Your task to perform on an android device: Find the nearest grocery store Image 0: 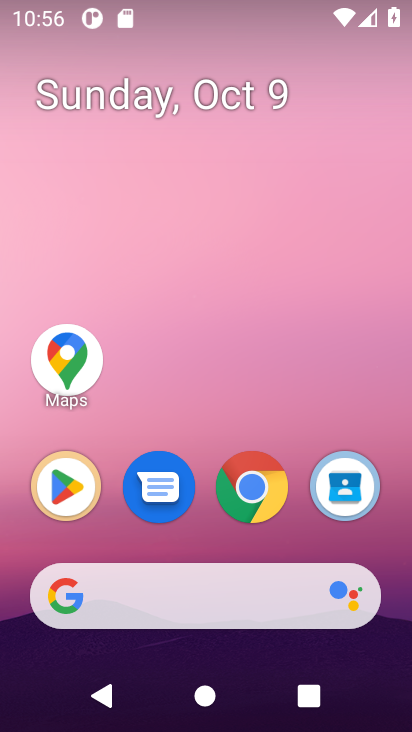
Step 0: click (258, 492)
Your task to perform on an android device: Find the nearest grocery store Image 1: 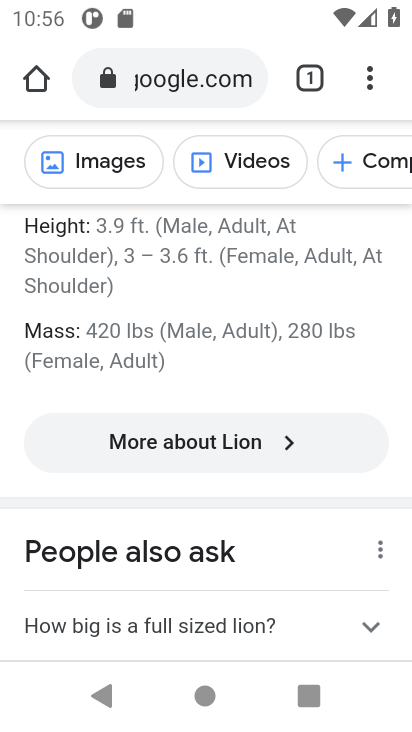
Step 1: click (199, 84)
Your task to perform on an android device: Find the nearest grocery store Image 2: 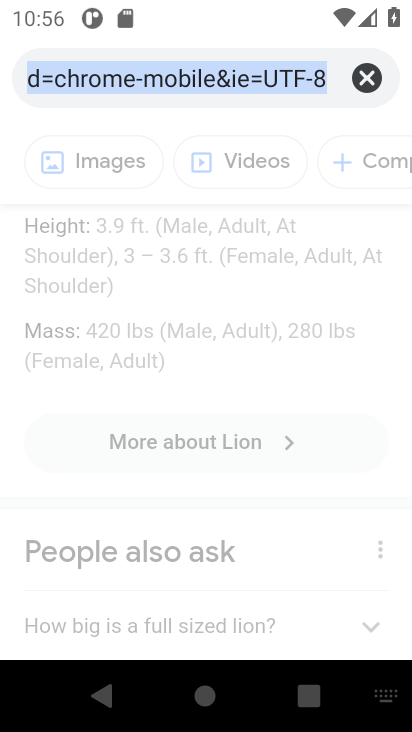
Step 2: type "nearest grocery store"
Your task to perform on an android device: Find the nearest grocery store Image 3: 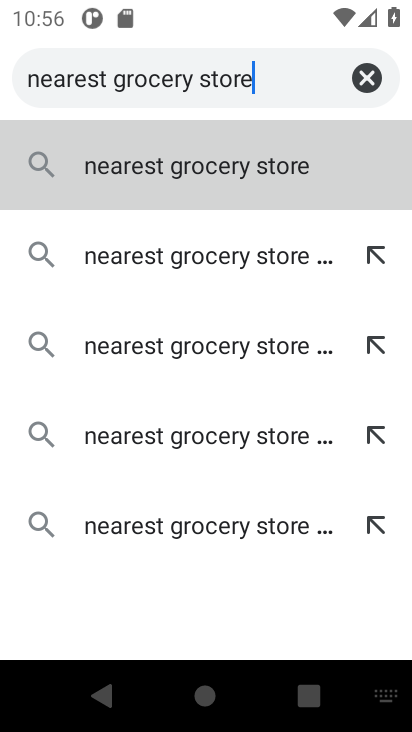
Step 3: type ""
Your task to perform on an android device: Find the nearest grocery store Image 4: 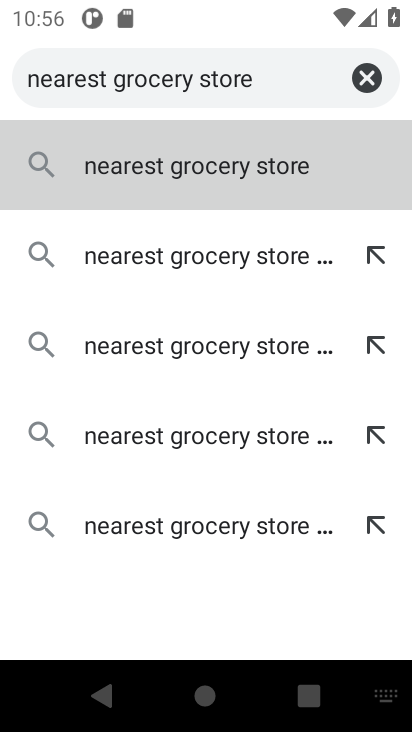
Step 4: press enter
Your task to perform on an android device: Find the nearest grocery store Image 5: 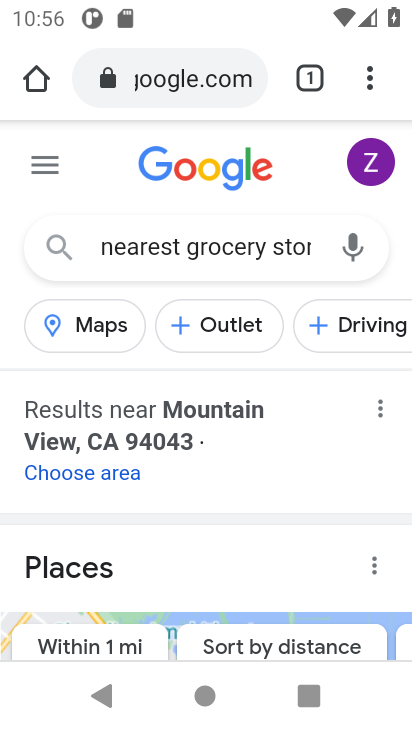
Step 5: drag from (311, 539) to (347, 127)
Your task to perform on an android device: Find the nearest grocery store Image 6: 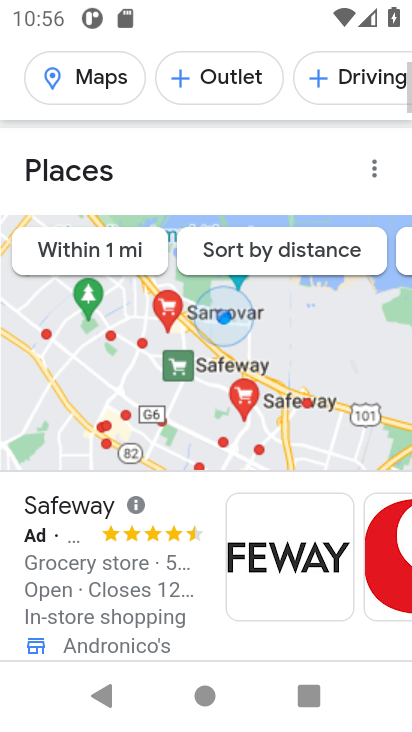
Step 6: drag from (278, 579) to (281, 253)
Your task to perform on an android device: Find the nearest grocery store Image 7: 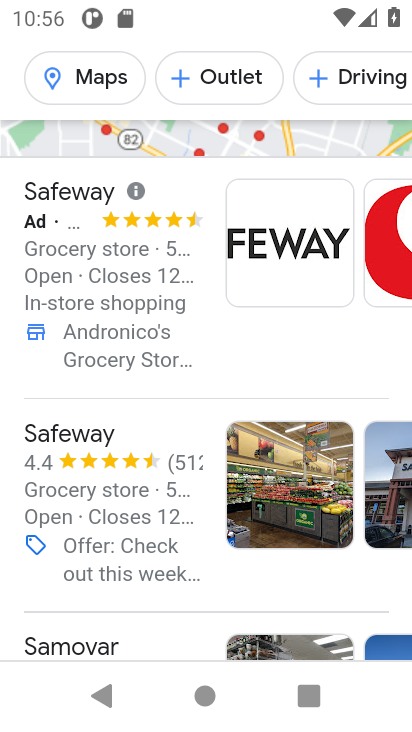
Step 7: drag from (228, 564) to (234, 220)
Your task to perform on an android device: Find the nearest grocery store Image 8: 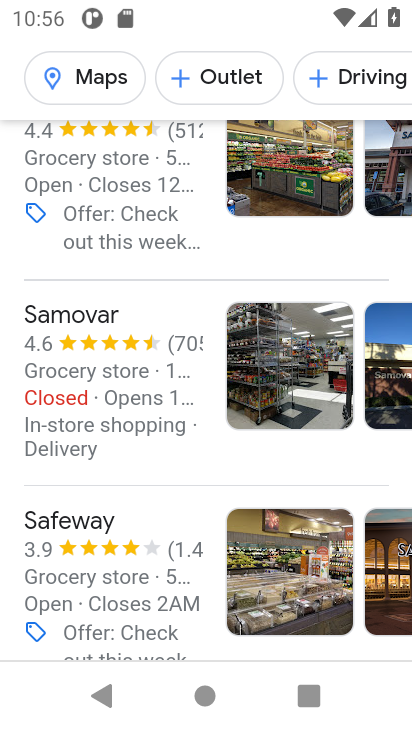
Step 8: drag from (198, 587) to (162, 199)
Your task to perform on an android device: Find the nearest grocery store Image 9: 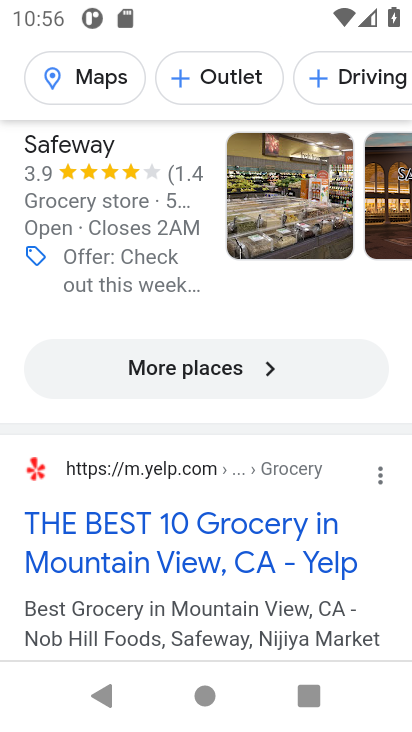
Step 9: click (192, 366)
Your task to perform on an android device: Find the nearest grocery store Image 10: 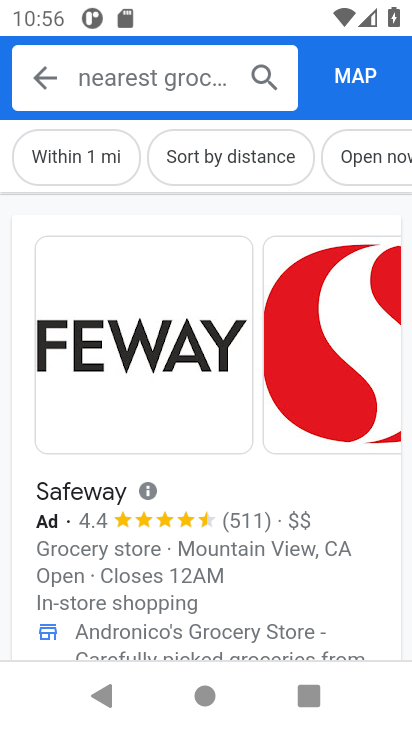
Step 10: task complete